Your task to perform on an android device: Open calendar and show me the third week of next month Image 0: 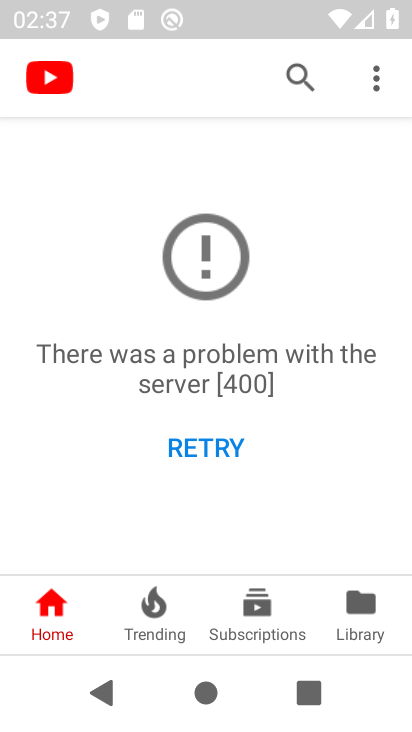
Step 0: press home button
Your task to perform on an android device: Open calendar and show me the third week of next month Image 1: 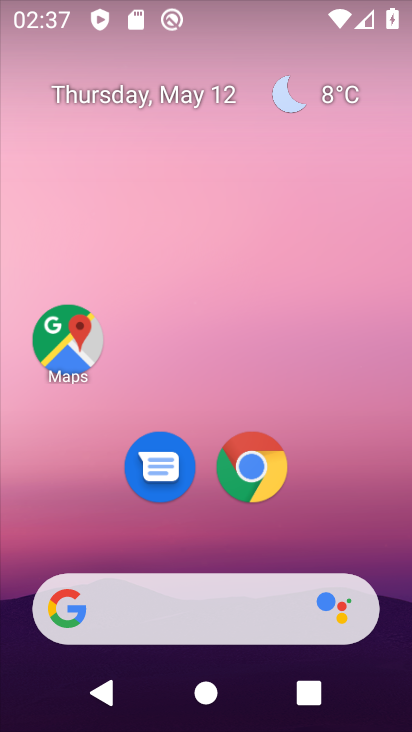
Step 1: drag from (348, 539) to (334, 8)
Your task to perform on an android device: Open calendar and show me the third week of next month Image 2: 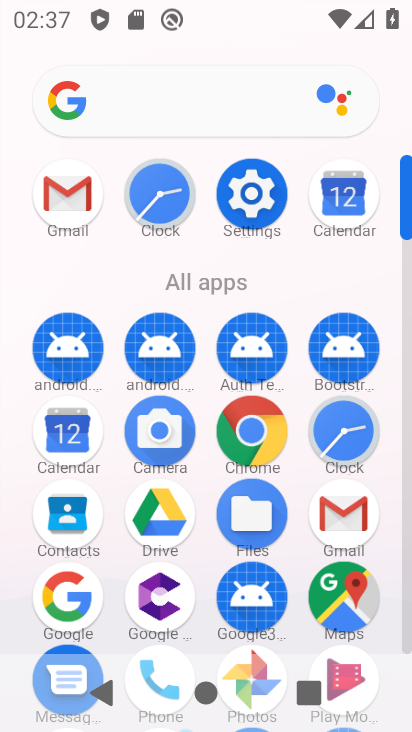
Step 2: click (337, 181)
Your task to perform on an android device: Open calendar and show me the third week of next month Image 3: 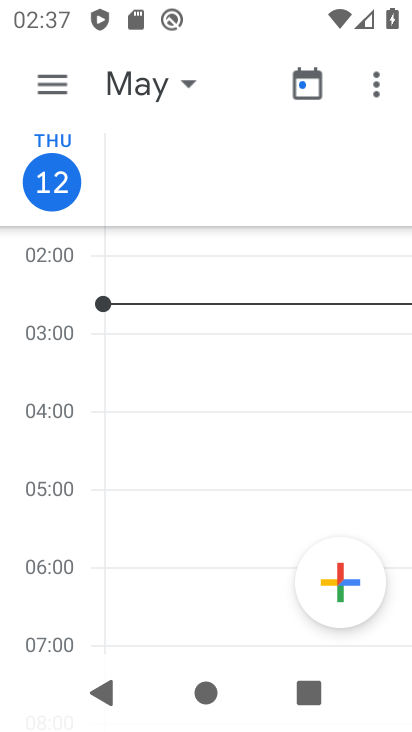
Step 3: click (176, 96)
Your task to perform on an android device: Open calendar and show me the third week of next month Image 4: 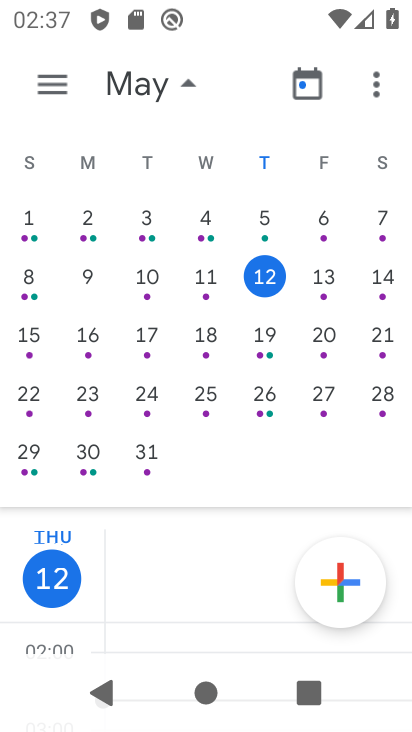
Step 4: drag from (368, 346) to (23, 240)
Your task to perform on an android device: Open calendar and show me the third week of next month Image 5: 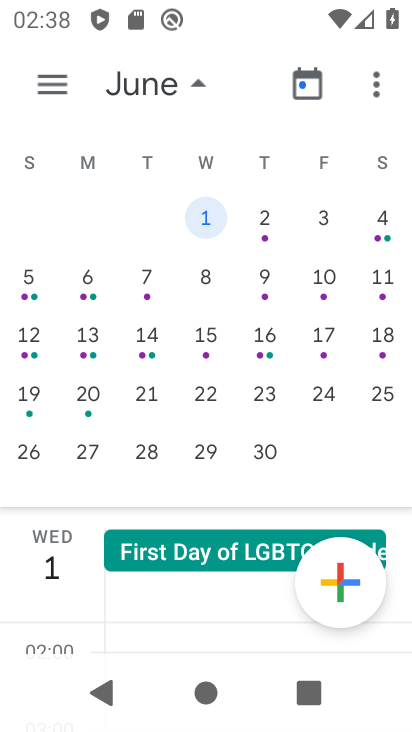
Step 5: click (78, 392)
Your task to perform on an android device: Open calendar and show me the third week of next month Image 6: 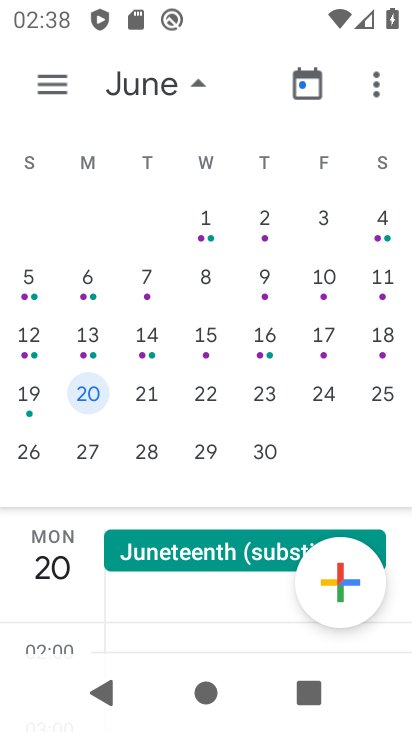
Step 6: click (48, 90)
Your task to perform on an android device: Open calendar and show me the third week of next month Image 7: 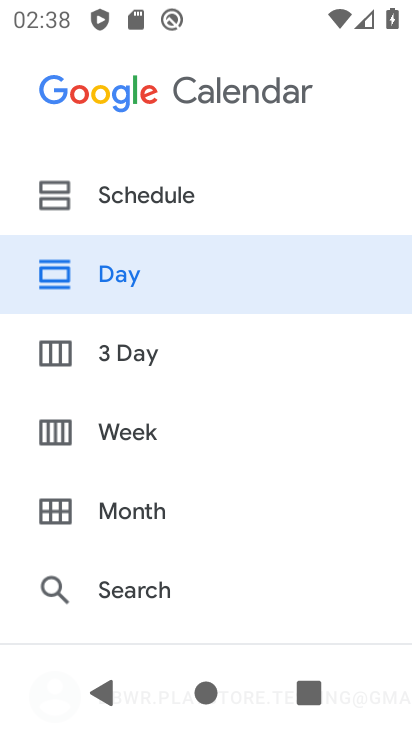
Step 7: click (123, 418)
Your task to perform on an android device: Open calendar and show me the third week of next month Image 8: 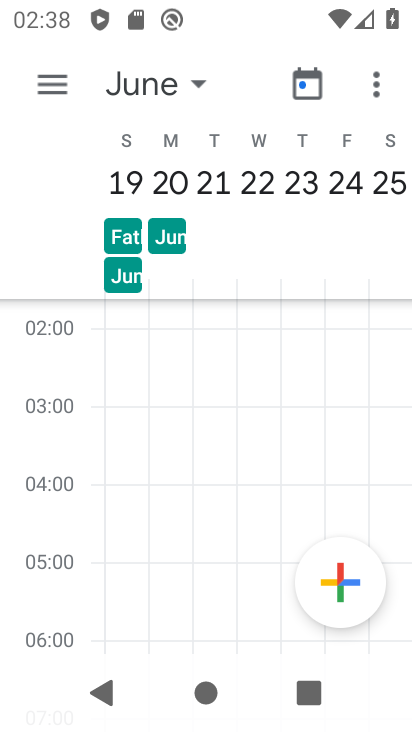
Step 8: task complete